Your task to perform on an android device: clear history in the chrome app Image 0: 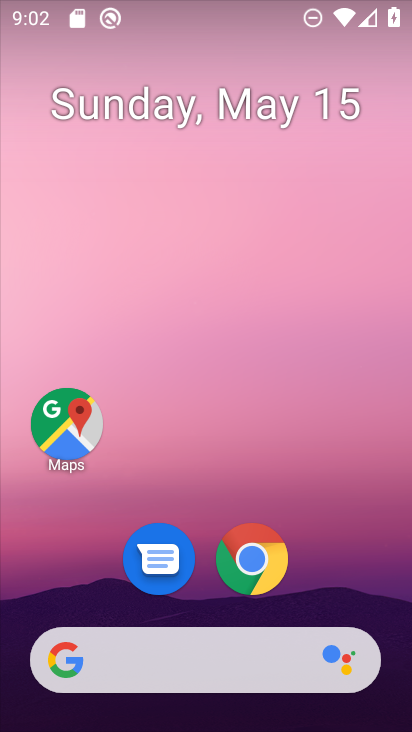
Step 0: click (255, 564)
Your task to perform on an android device: clear history in the chrome app Image 1: 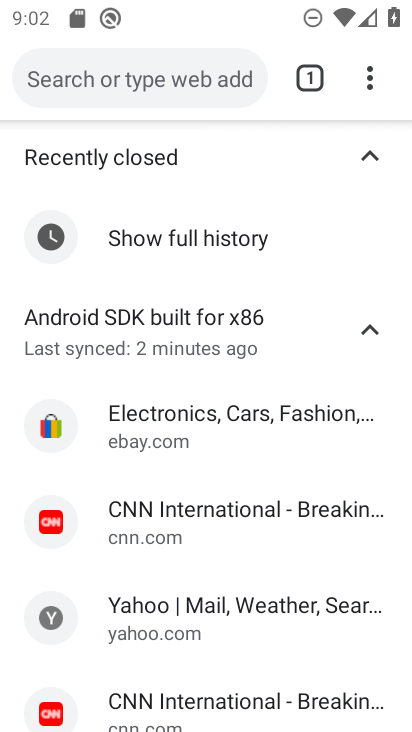
Step 1: click (376, 76)
Your task to perform on an android device: clear history in the chrome app Image 2: 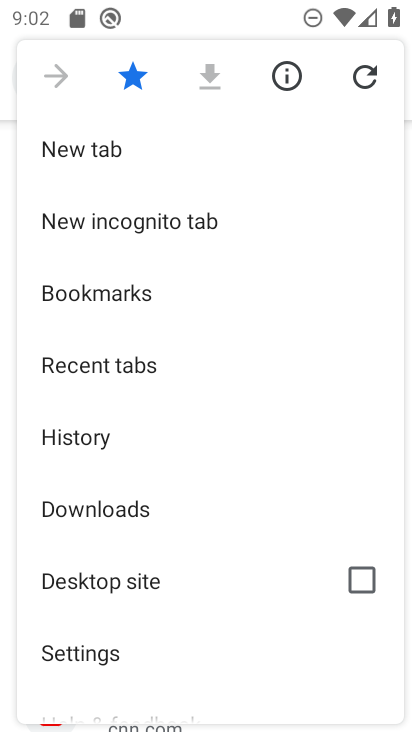
Step 2: click (94, 455)
Your task to perform on an android device: clear history in the chrome app Image 3: 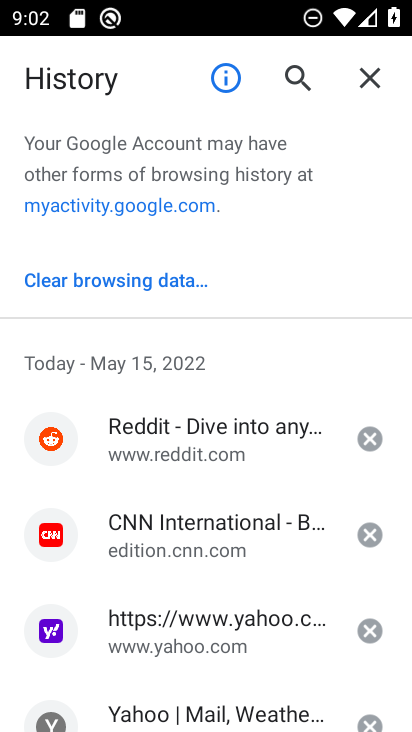
Step 3: click (156, 288)
Your task to perform on an android device: clear history in the chrome app Image 4: 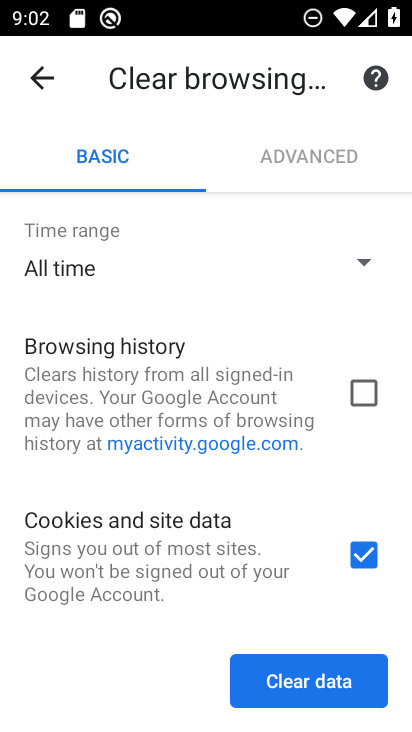
Step 4: click (353, 556)
Your task to perform on an android device: clear history in the chrome app Image 5: 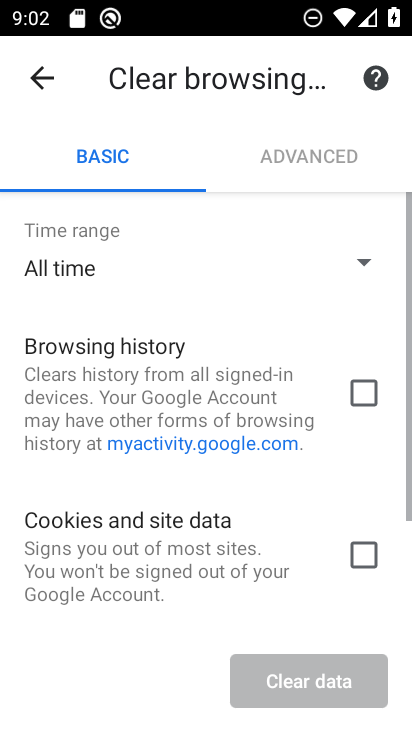
Step 5: click (405, 601)
Your task to perform on an android device: clear history in the chrome app Image 6: 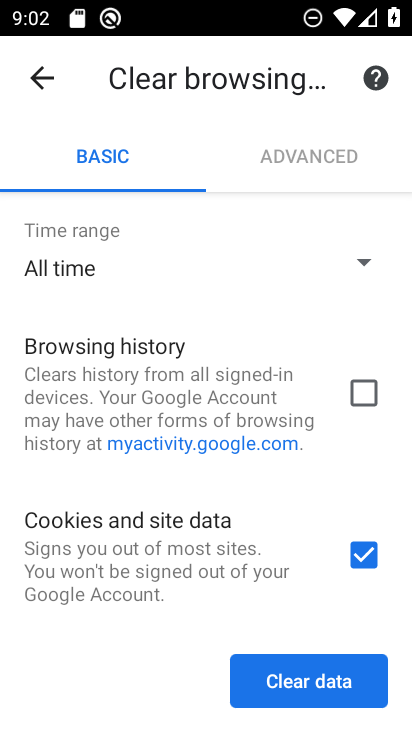
Step 6: drag from (411, 506) to (411, 660)
Your task to perform on an android device: clear history in the chrome app Image 7: 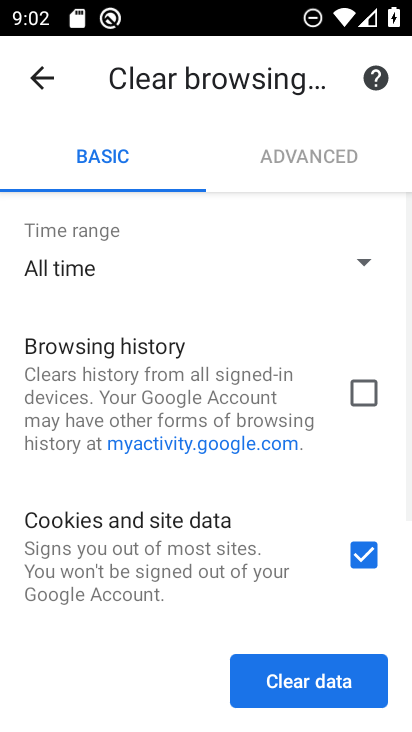
Step 7: drag from (205, 536) to (221, 292)
Your task to perform on an android device: clear history in the chrome app Image 8: 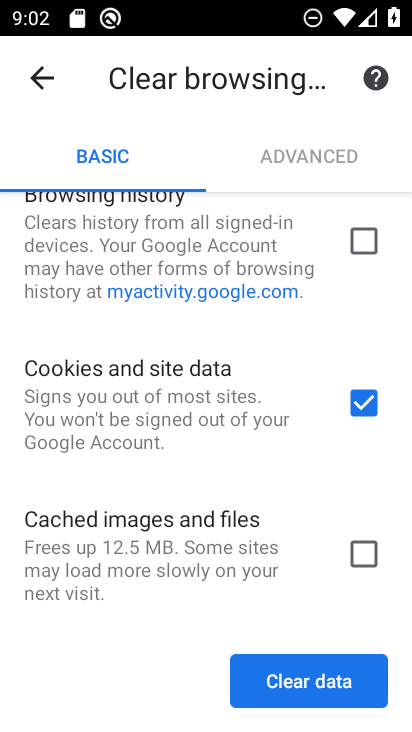
Step 8: click (349, 414)
Your task to perform on an android device: clear history in the chrome app Image 9: 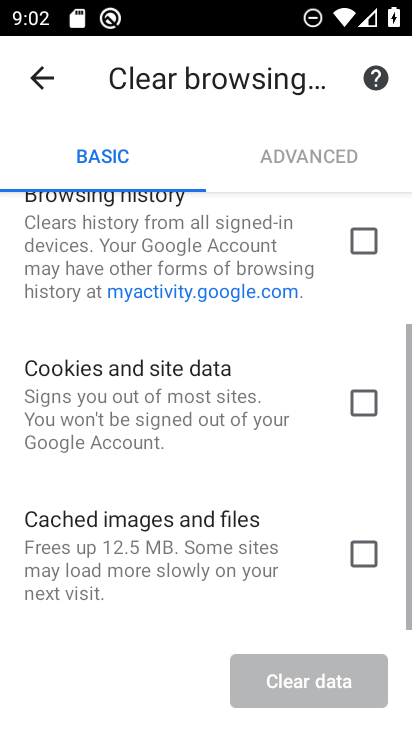
Step 9: click (363, 252)
Your task to perform on an android device: clear history in the chrome app Image 10: 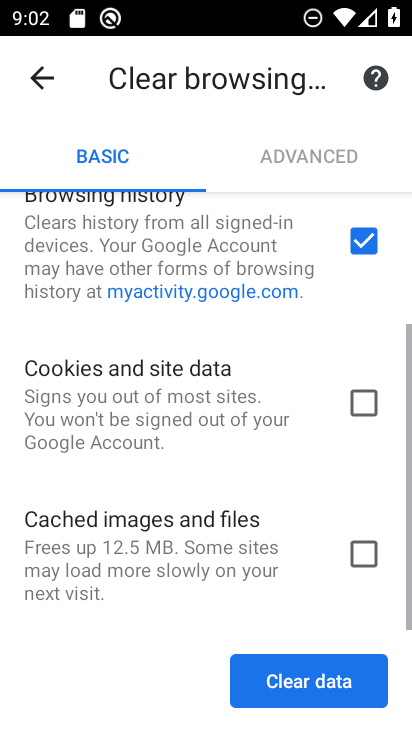
Step 10: click (333, 684)
Your task to perform on an android device: clear history in the chrome app Image 11: 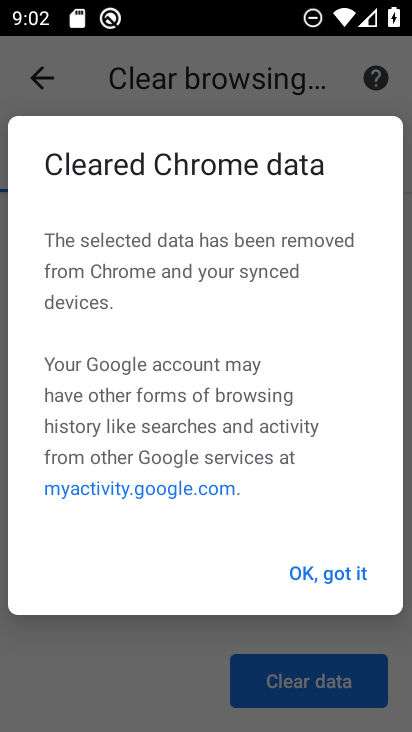
Step 11: click (347, 604)
Your task to perform on an android device: clear history in the chrome app Image 12: 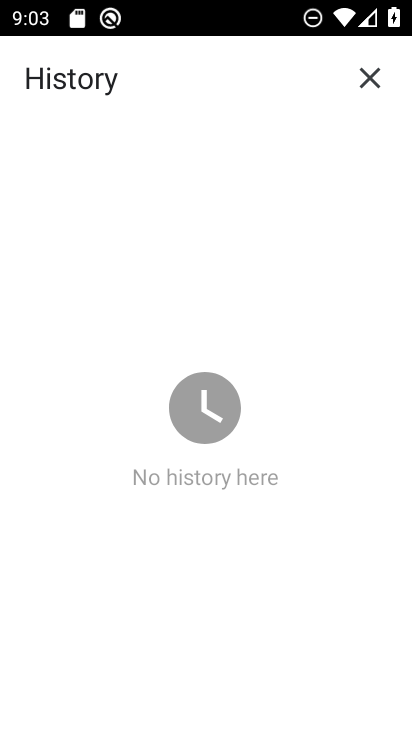
Step 12: task complete